Your task to perform on an android device: Go to sound settings Image 0: 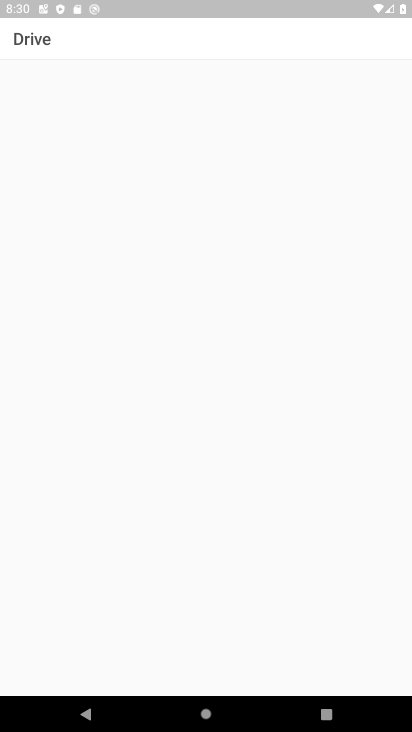
Step 0: press home button
Your task to perform on an android device: Go to sound settings Image 1: 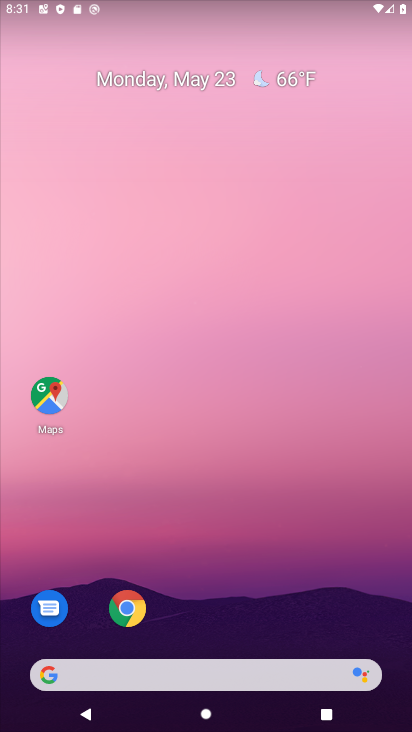
Step 1: drag from (226, 713) to (223, 161)
Your task to perform on an android device: Go to sound settings Image 2: 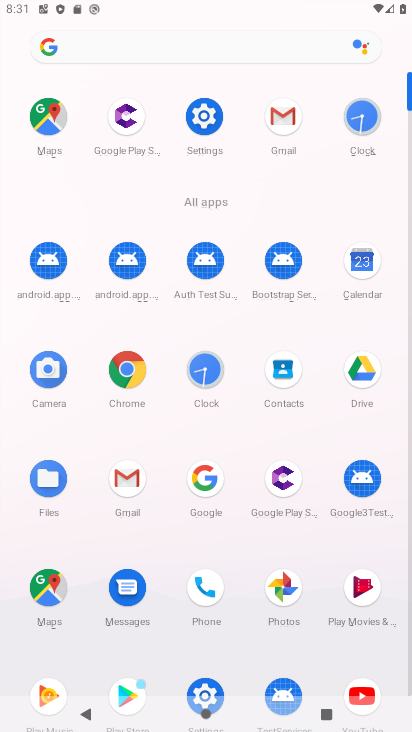
Step 2: click (204, 114)
Your task to perform on an android device: Go to sound settings Image 3: 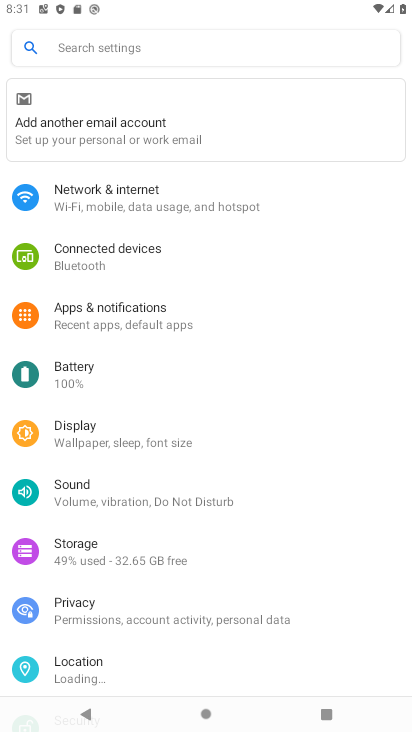
Step 3: click (87, 494)
Your task to perform on an android device: Go to sound settings Image 4: 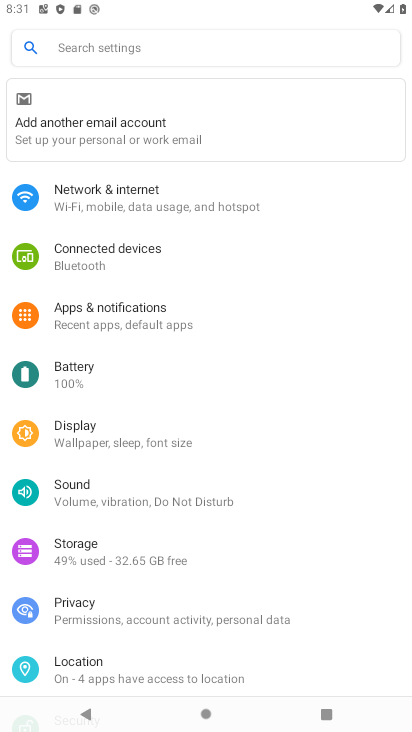
Step 4: click (80, 488)
Your task to perform on an android device: Go to sound settings Image 5: 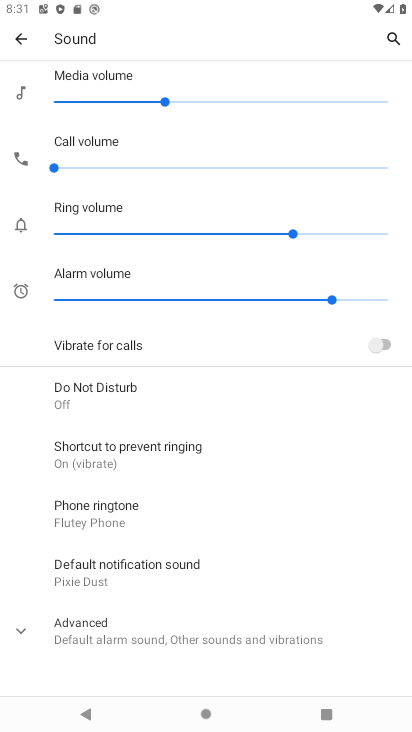
Step 5: task complete